Your task to perform on an android device: Open eBay Image 0: 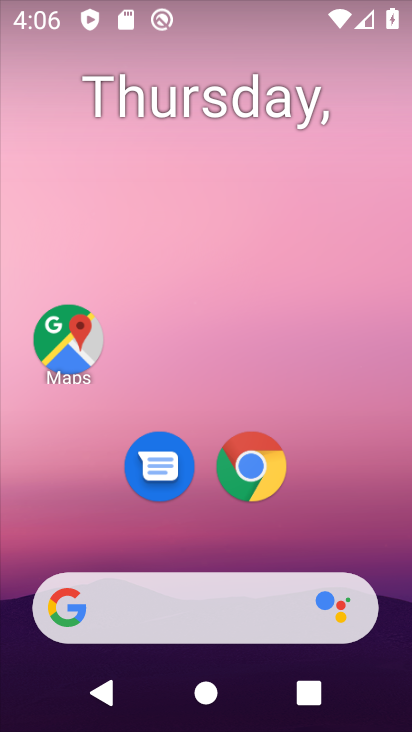
Step 0: click (257, 466)
Your task to perform on an android device: Open eBay Image 1: 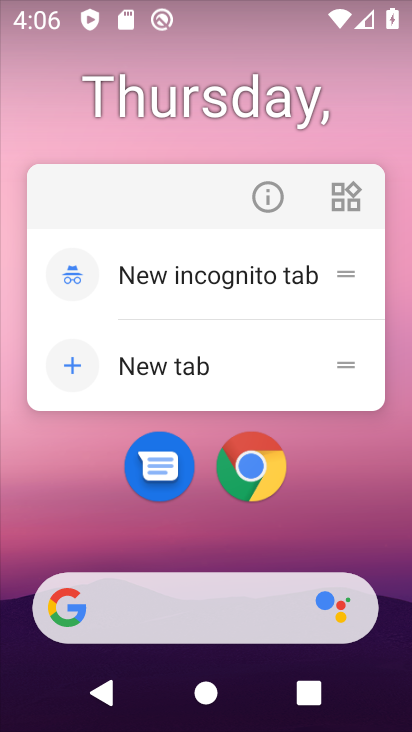
Step 1: click (70, 606)
Your task to perform on an android device: Open eBay Image 2: 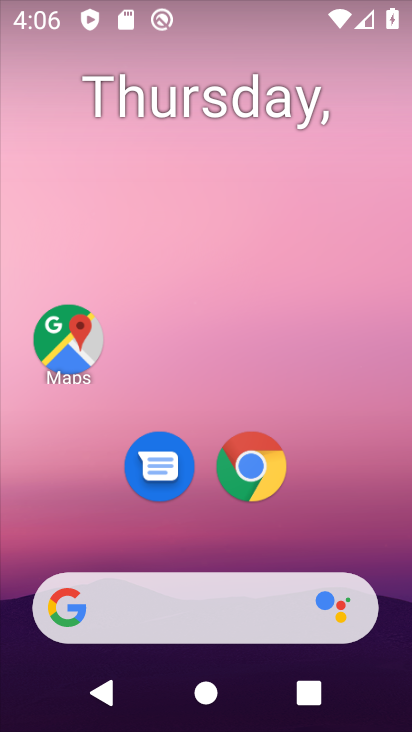
Step 2: click (65, 613)
Your task to perform on an android device: Open eBay Image 3: 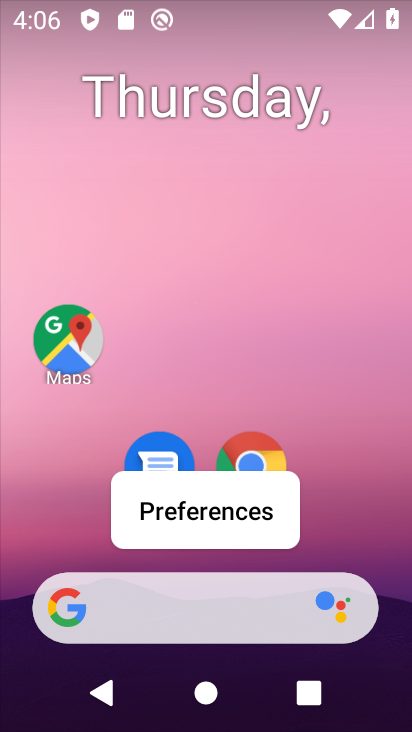
Step 3: click (74, 620)
Your task to perform on an android device: Open eBay Image 4: 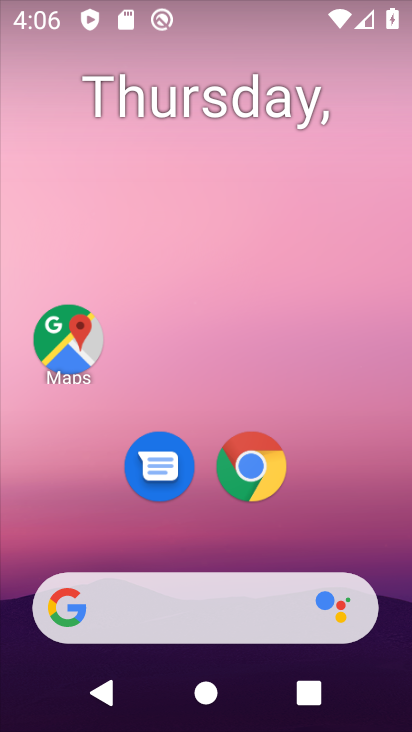
Step 4: type "Open eBay"
Your task to perform on an android device: Open eBay Image 5: 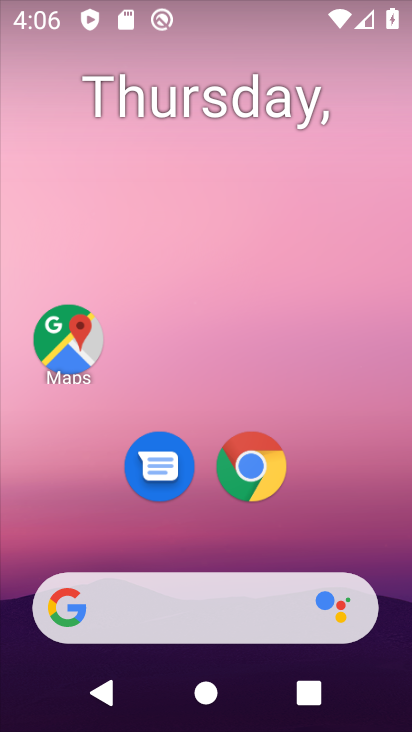
Step 5: click (64, 609)
Your task to perform on an android device: Open eBay Image 6: 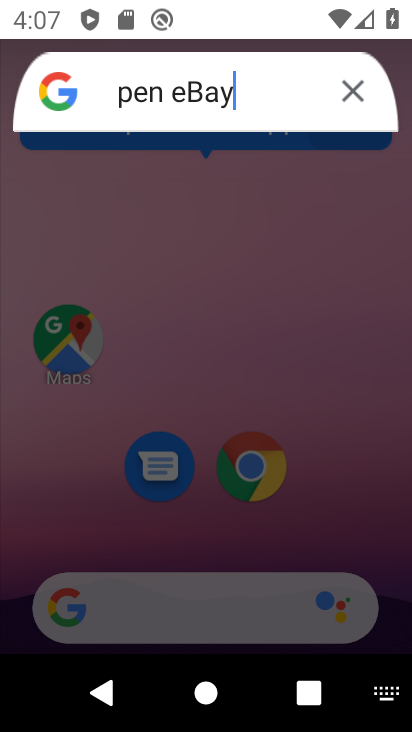
Step 6: press enter
Your task to perform on an android device: Open eBay Image 7: 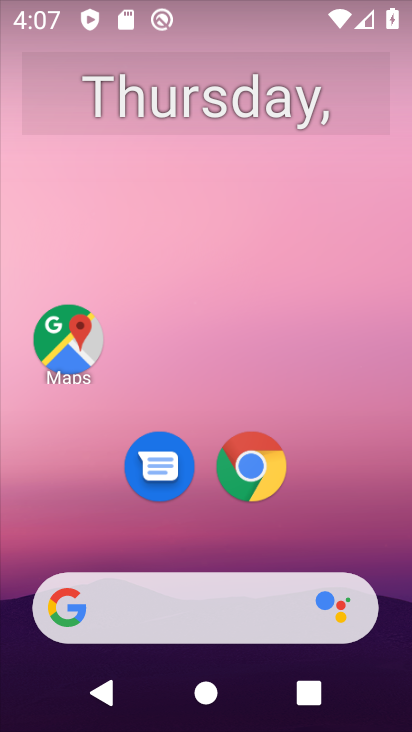
Step 7: click (60, 607)
Your task to perform on an android device: Open eBay Image 8: 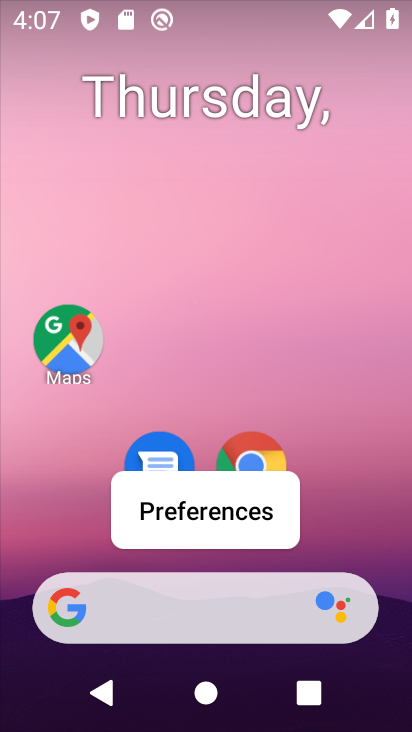
Step 8: click (76, 626)
Your task to perform on an android device: Open eBay Image 9: 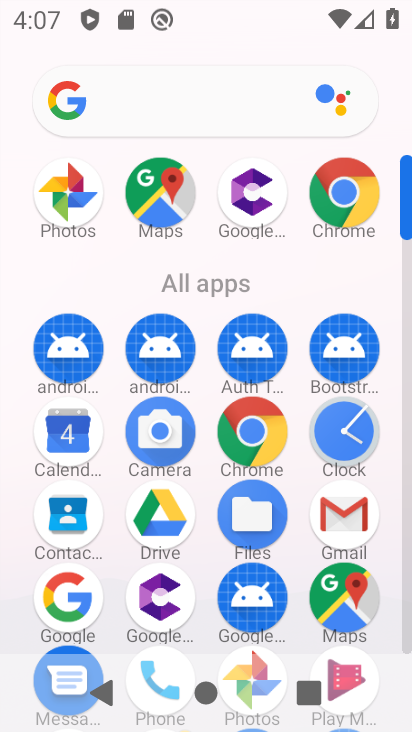
Step 9: press enter
Your task to perform on an android device: Open eBay Image 10: 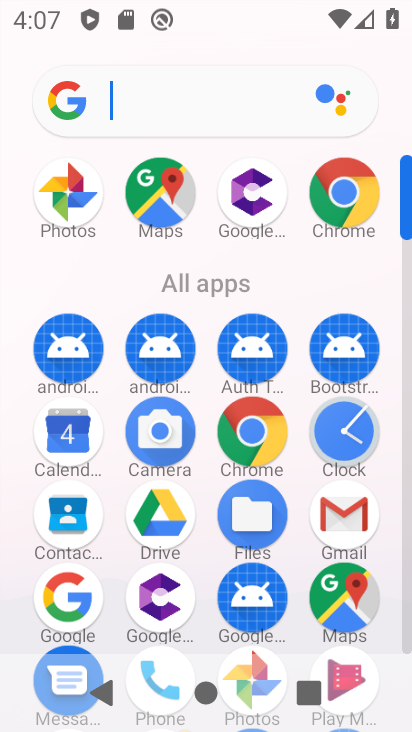
Step 10: type "eBay"
Your task to perform on an android device: Open eBay Image 11: 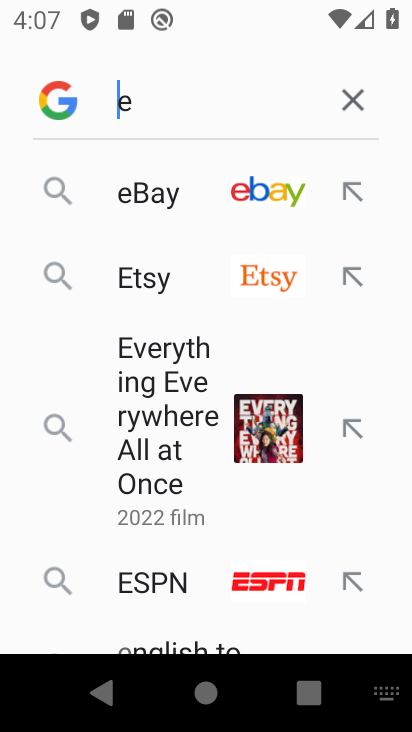
Step 11: click (158, 204)
Your task to perform on an android device: Open eBay Image 12: 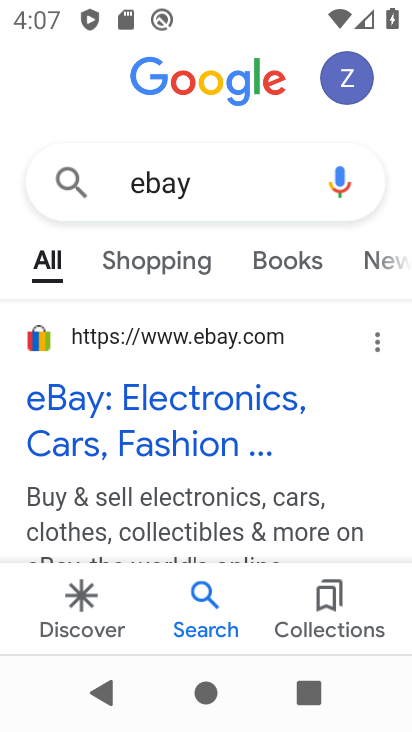
Step 12: click (148, 398)
Your task to perform on an android device: Open eBay Image 13: 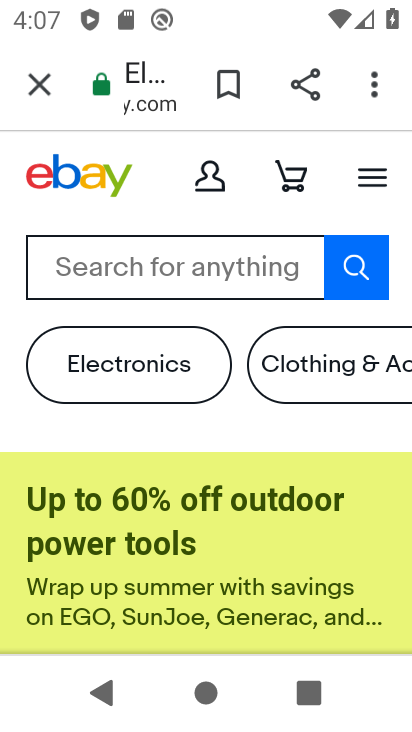
Step 13: task complete